Your task to perform on an android device: turn on bluetooth scan Image 0: 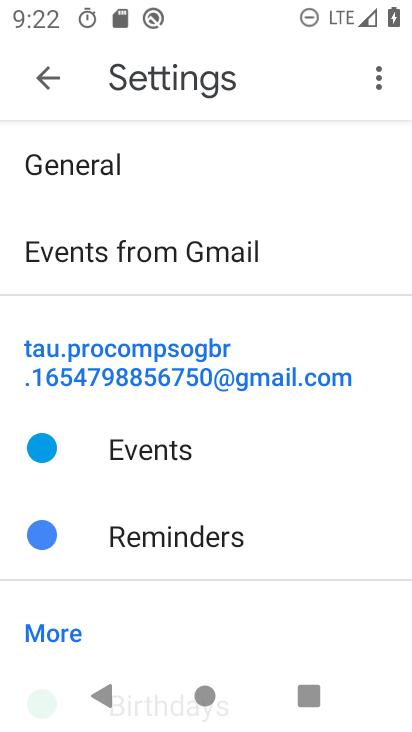
Step 0: press back button
Your task to perform on an android device: turn on bluetooth scan Image 1: 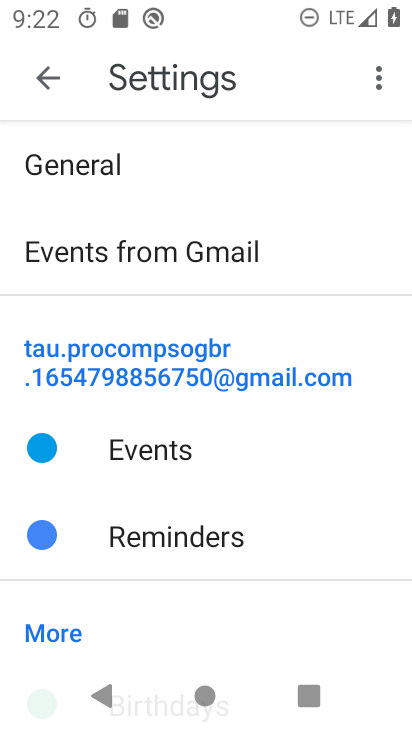
Step 1: press back button
Your task to perform on an android device: turn on bluetooth scan Image 2: 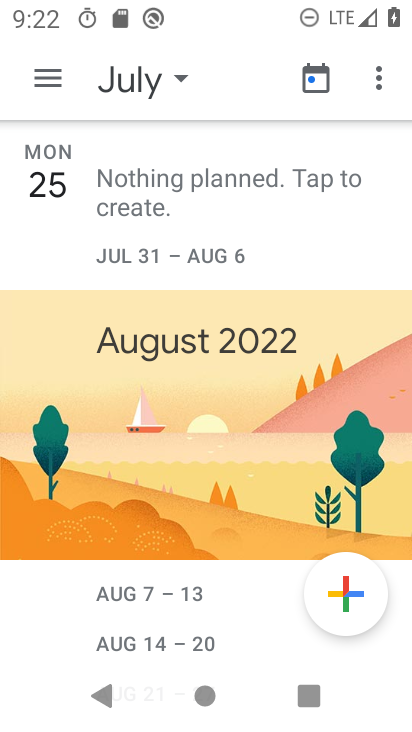
Step 2: press back button
Your task to perform on an android device: turn on bluetooth scan Image 3: 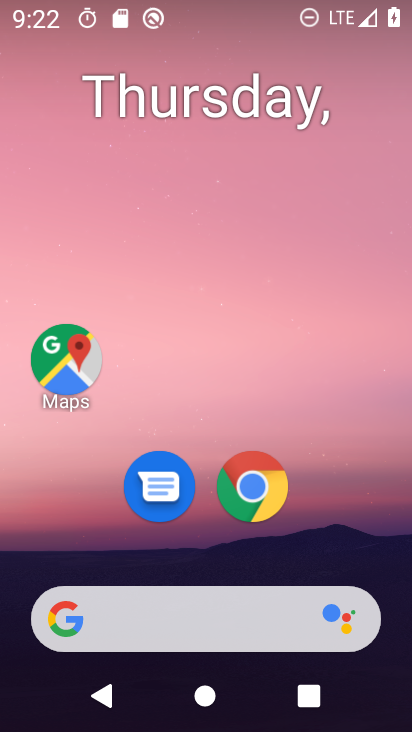
Step 3: drag from (110, 527) to (246, 24)
Your task to perform on an android device: turn on bluetooth scan Image 4: 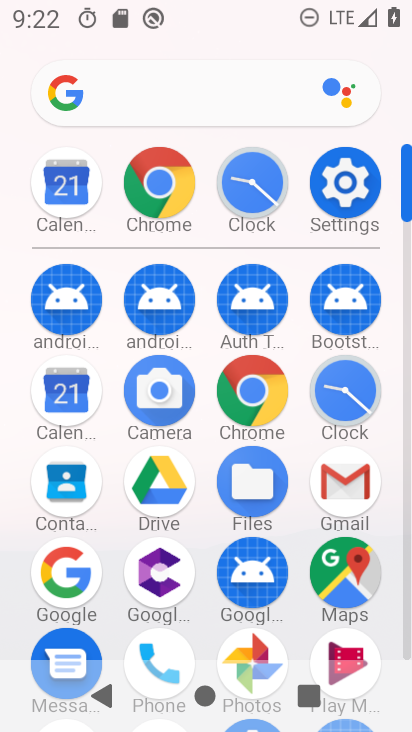
Step 4: click (365, 184)
Your task to perform on an android device: turn on bluetooth scan Image 5: 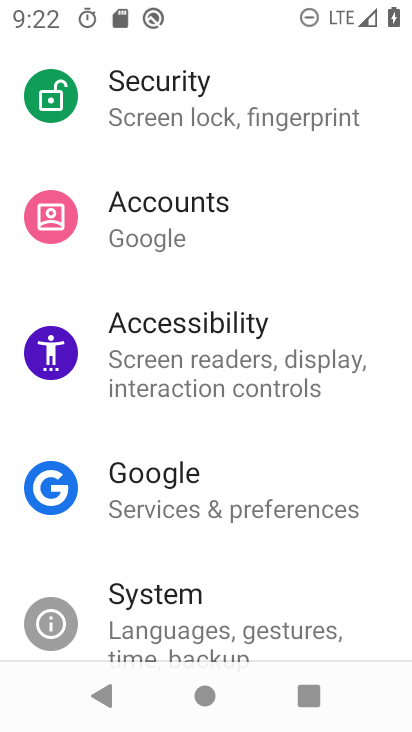
Step 5: drag from (215, 170) to (172, 704)
Your task to perform on an android device: turn on bluetooth scan Image 6: 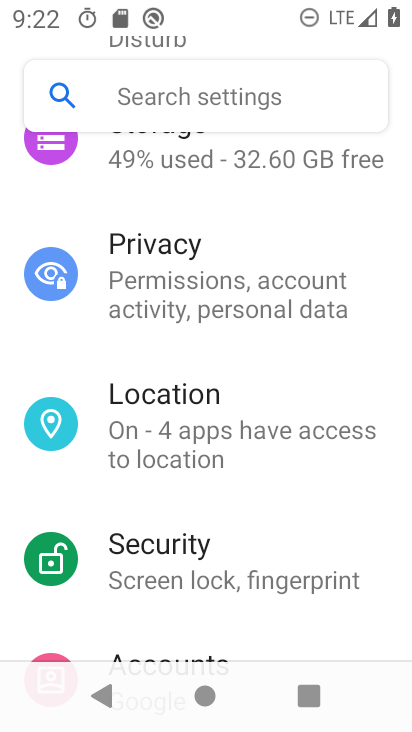
Step 6: drag from (207, 240) to (201, 711)
Your task to perform on an android device: turn on bluetooth scan Image 7: 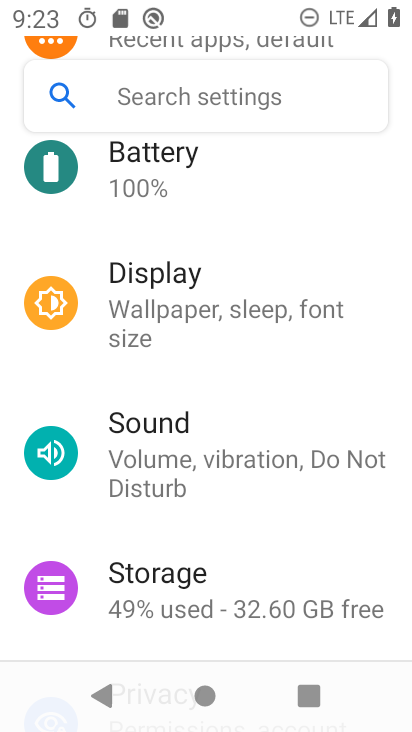
Step 7: drag from (285, 163) to (163, 724)
Your task to perform on an android device: turn on bluetooth scan Image 8: 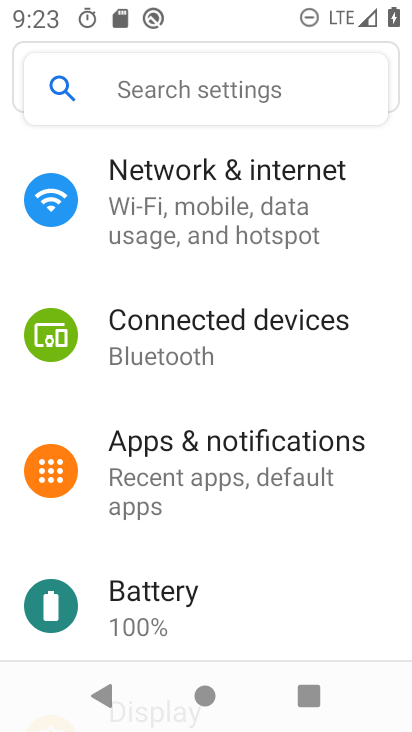
Step 8: click (163, 342)
Your task to perform on an android device: turn on bluetooth scan Image 9: 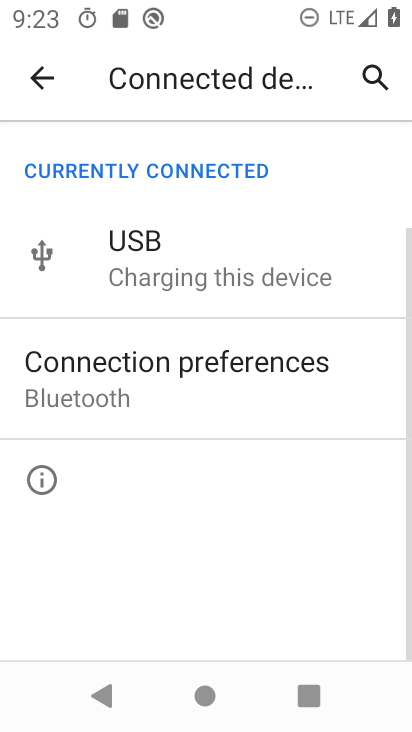
Step 9: click (151, 378)
Your task to perform on an android device: turn on bluetooth scan Image 10: 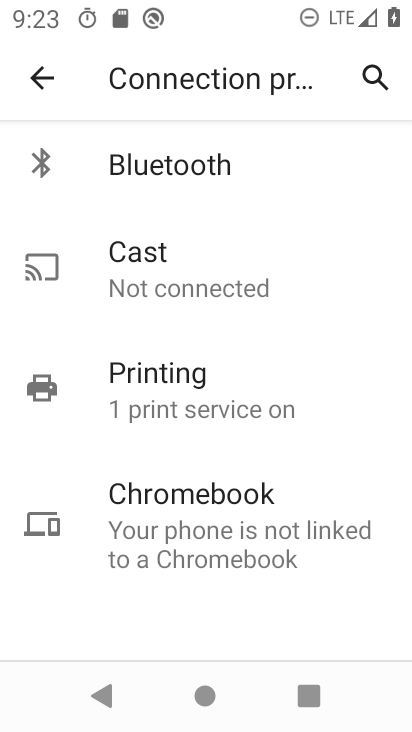
Step 10: click (197, 153)
Your task to perform on an android device: turn on bluetooth scan Image 11: 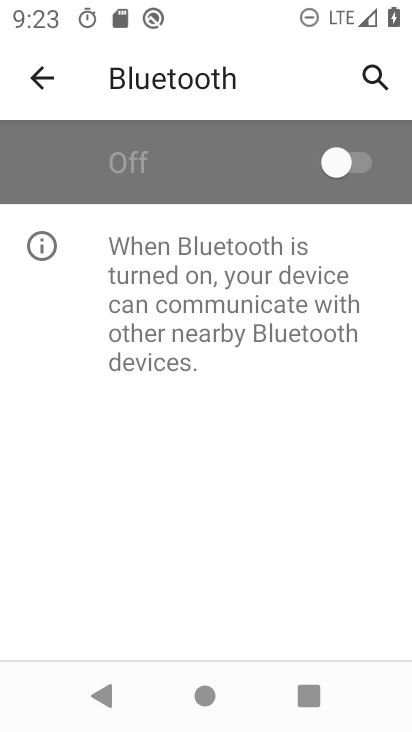
Step 11: click (335, 160)
Your task to perform on an android device: turn on bluetooth scan Image 12: 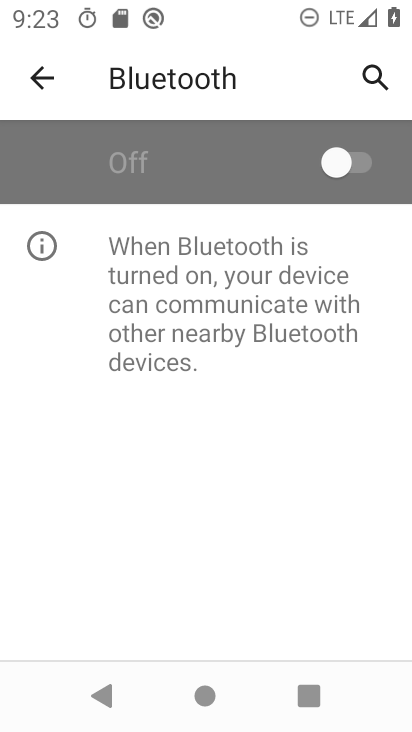
Step 12: task complete